Your task to perform on an android device: visit the assistant section in the google photos Image 0: 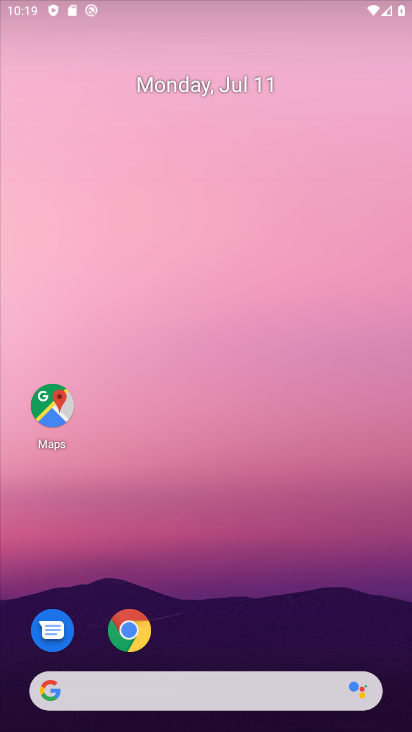
Step 0: drag from (327, 679) to (256, 47)
Your task to perform on an android device: visit the assistant section in the google photos Image 1: 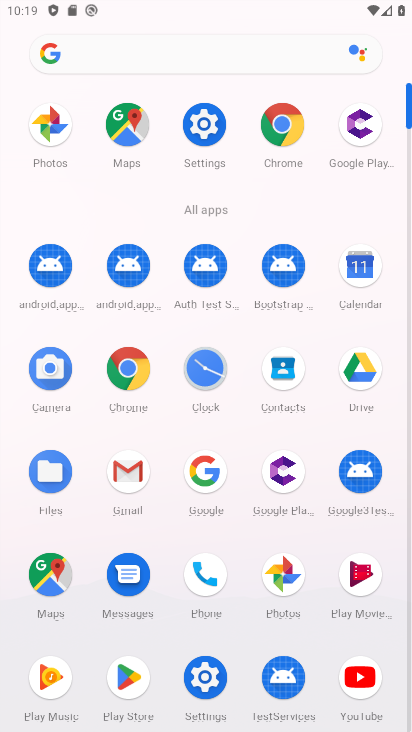
Step 1: click (291, 578)
Your task to perform on an android device: visit the assistant section in the google photos Image 2: 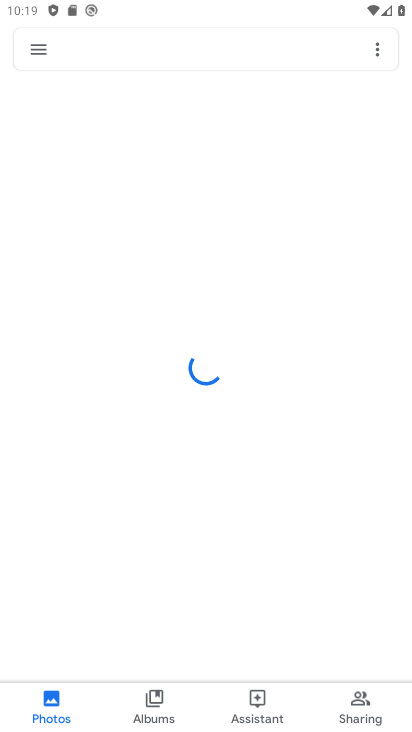
Step 2: click (264, 693)
Your task to perform on an android device: visit the assistant section in the google photos Image 3: 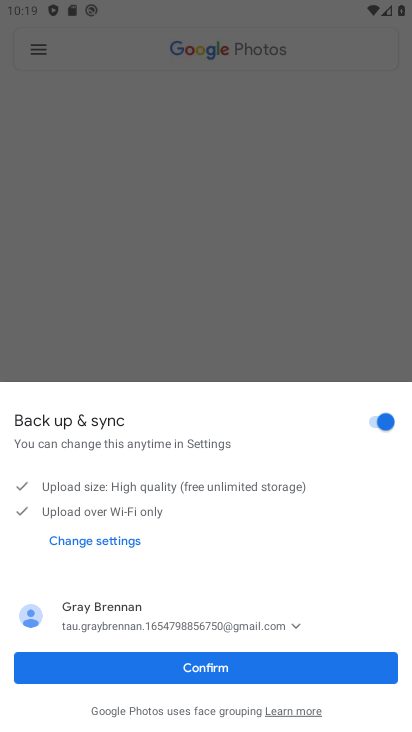
Step 3: click (254, 675)
Your task to perform on an android device: visit the assistant section in the google photos Image 4: 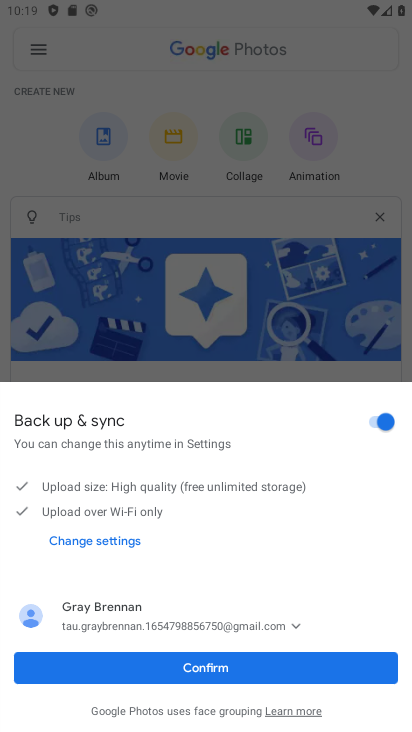
Step 4: click (254, 673)
Your task to perform on an android device: visit the assistant section in the google photos Image 5: 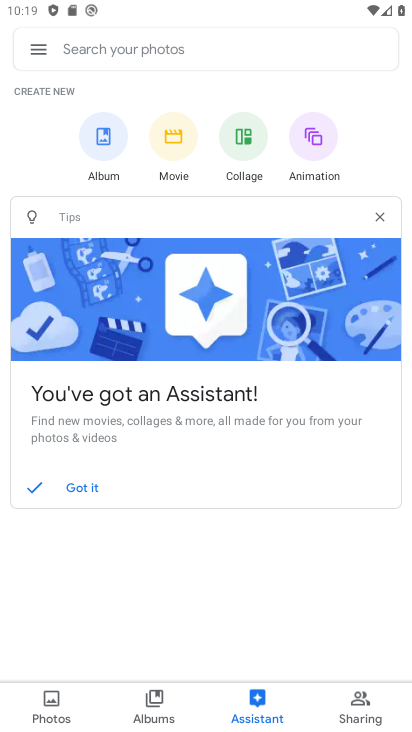
Step 5: click (249, 701)
Your task to perform on an android device: visit the assistant section in the google photos Image 6: 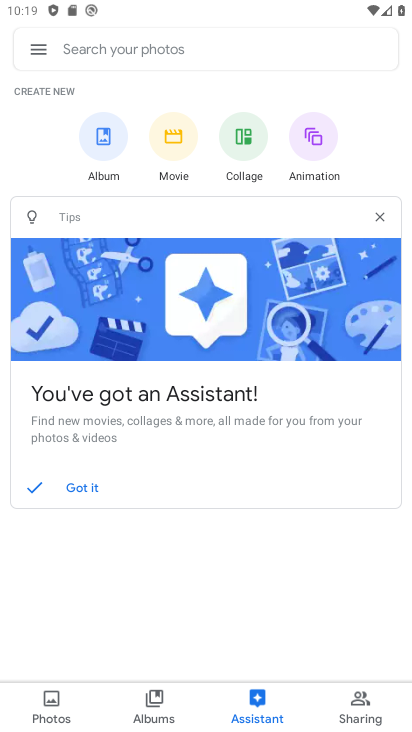
Step 6: task complete